Your task to perform on an android device: find photos in the google photos app Image 0: 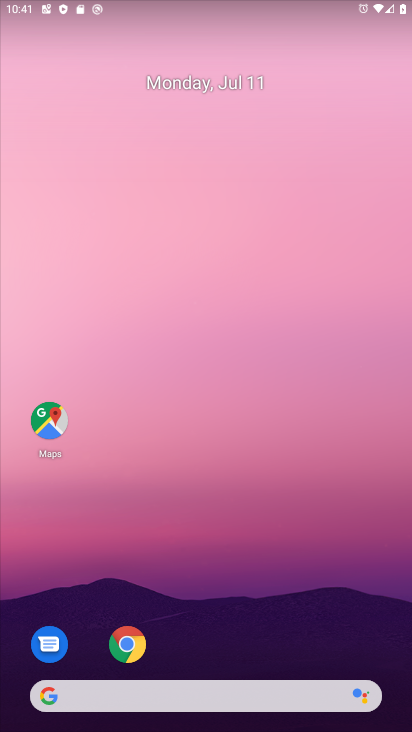
Step 0: press home button
Your task to perform on an android device: find photos in the google photos app Image 1: 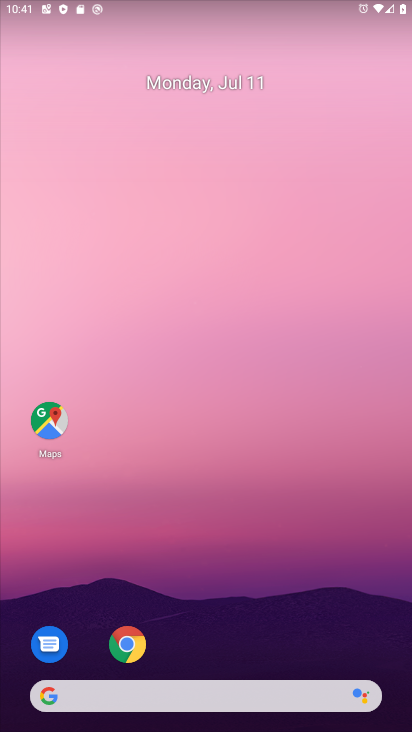
Step 1: drag from (231, 644) to (280, 42)
Your task to perform on an android device: find photos in the google photos app Image 2: 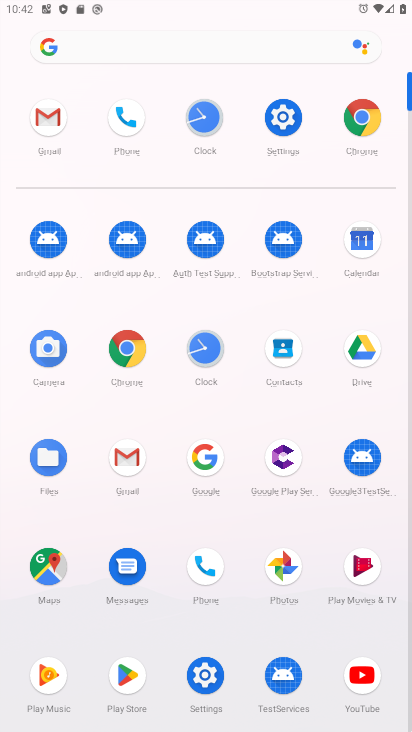
Step 2: click (282, 568)
Your task to perform on an android device: find photos in the google photos app Image 3: 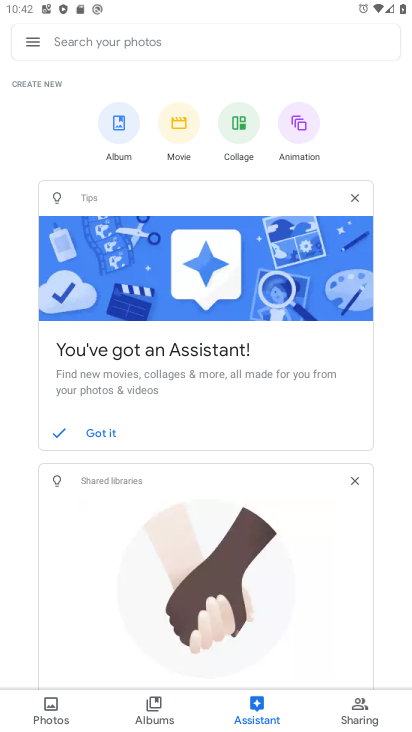
Step 3: click (47, 708)
Your task to perform on an android device: find photos in the google photos app Image 4: 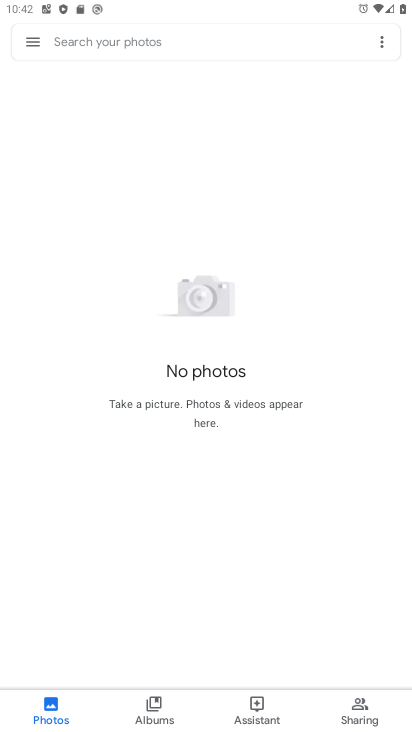
Step 4: task complete